Your task to perform on an android device: turn off priority inbox in the gmail app Image 0: 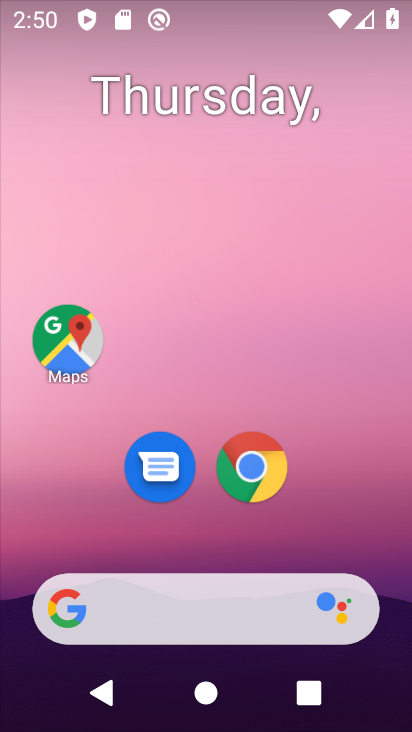
Step 0: drag from (243, 597) to (295, 67)
Your task to perform on an android device: turn off priority inbox in the gmail app Image 1: 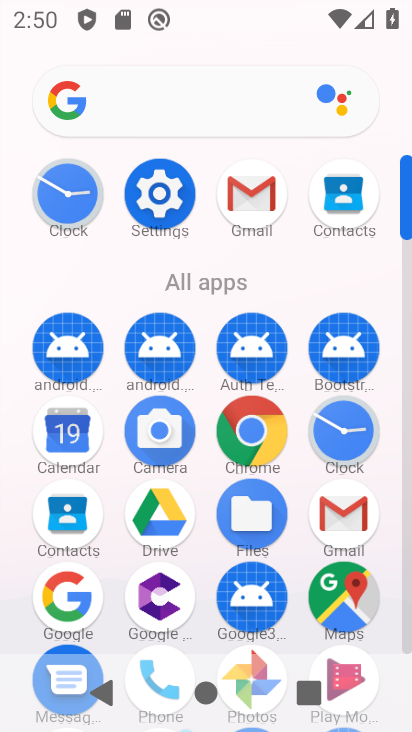
Step 1: click (265, 216)
Your task to perform on an android device: turn off priority inbox in the gmail app Image 2: 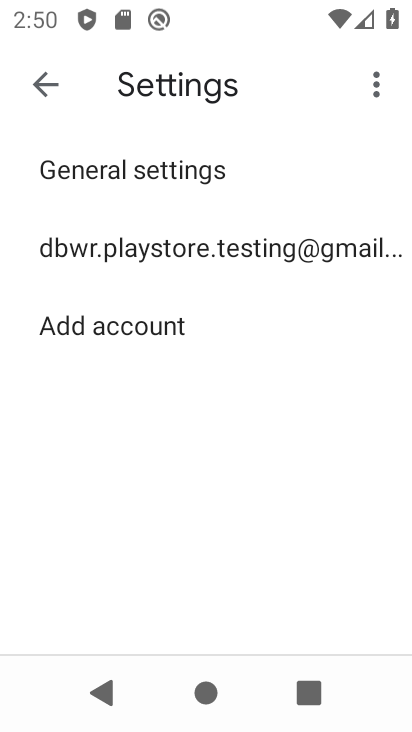
Step 2: click (148, 251)
Your task to perform on an android device: turn off priority inbox in the gmail app Image 3: 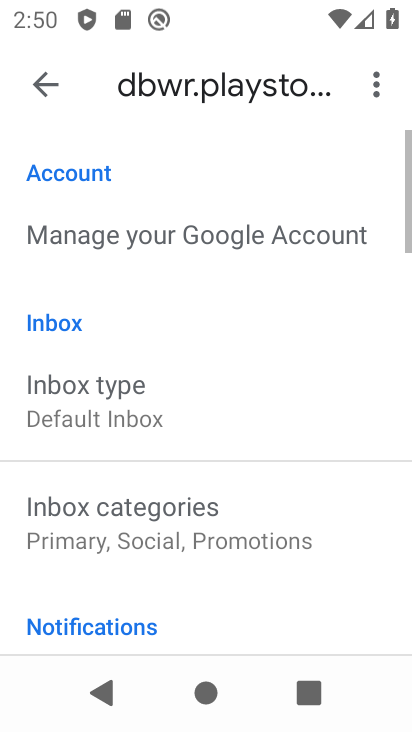
Step 3: click (116, 411)
Your task to perform on an android device: turn off priority inbox in the gmail app Image 4: 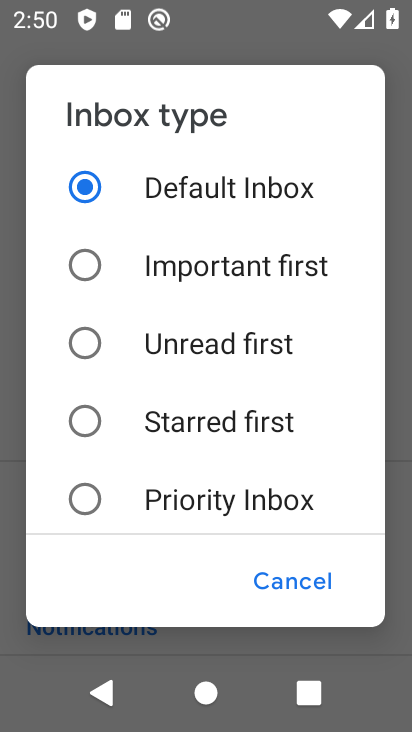
Step 4: click (104, 192)
Your task to perform on an android device: turn off priority inbox in the gmail app Image 5: 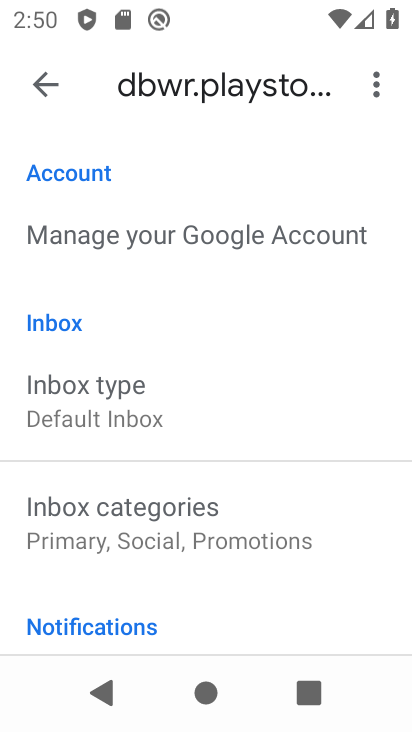
Step 5: task complete